Your task to perform on an android device: snooze an email in the gmail app Image 0: 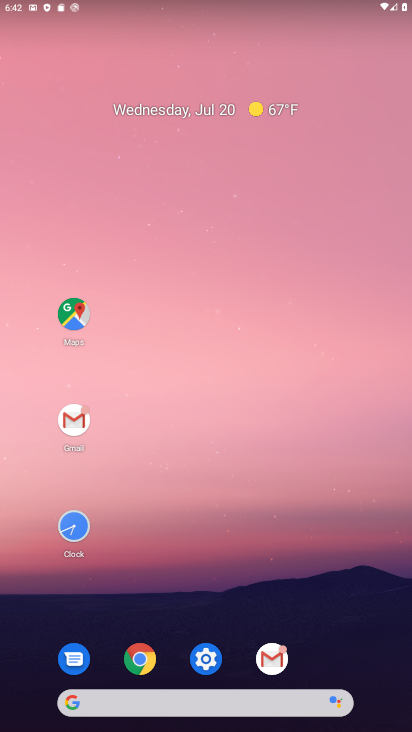
Step 0: click (282, 661)
Your task to perform on an android device: snooze an email in the gmail app Image 1: 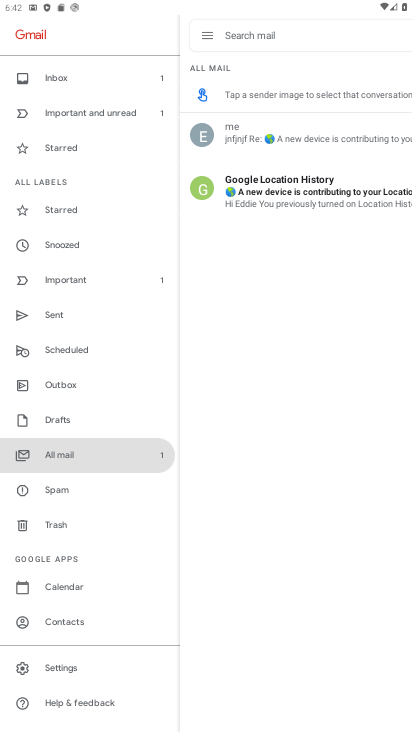
Step 1: click (278, 172)
Your task to perform on an android device: snooze an email in the gmail app Image 2: 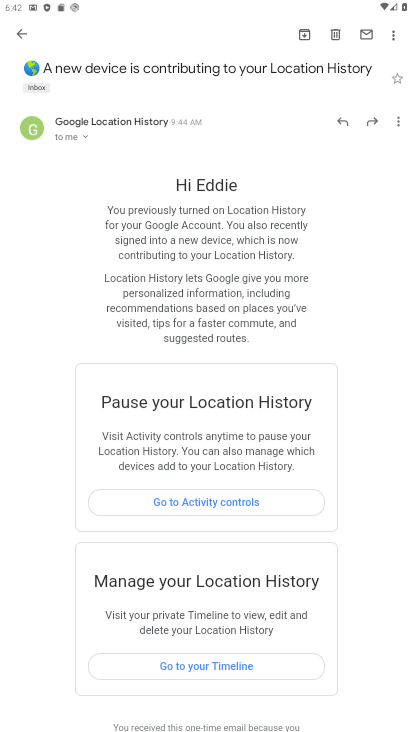
Step 2: click (393, 29)
Your task to perform on an android device: snooze an email in the gmail app Image 3: 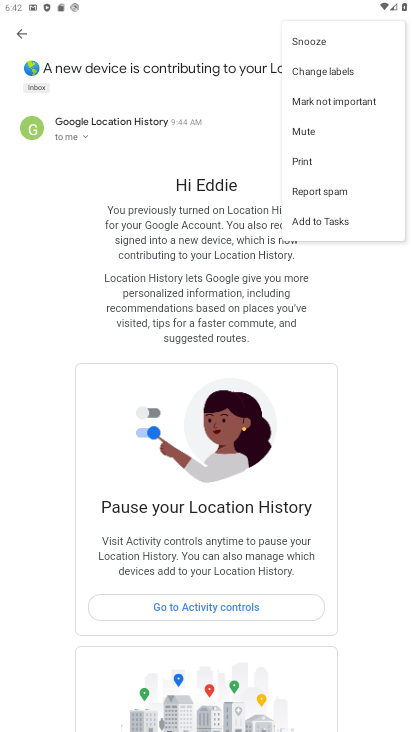
Step 3: click (320, 38)
Your task to perform on an android device: snooze an email in the gmail app Image 4: 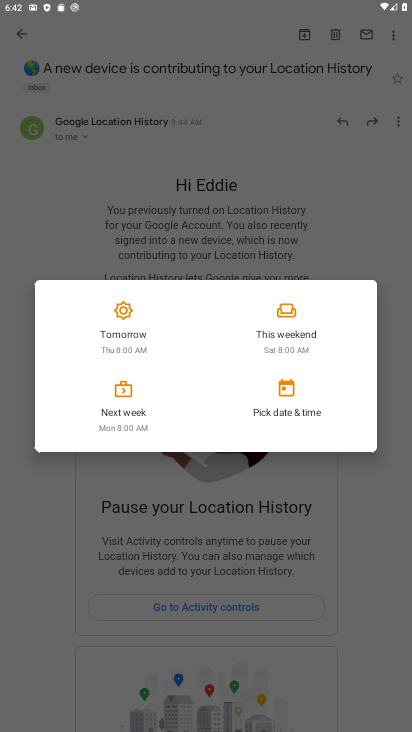
Step 4: click (123, 323)
Your task to perform on an android device: snooze an email in the gmail app Image 5: 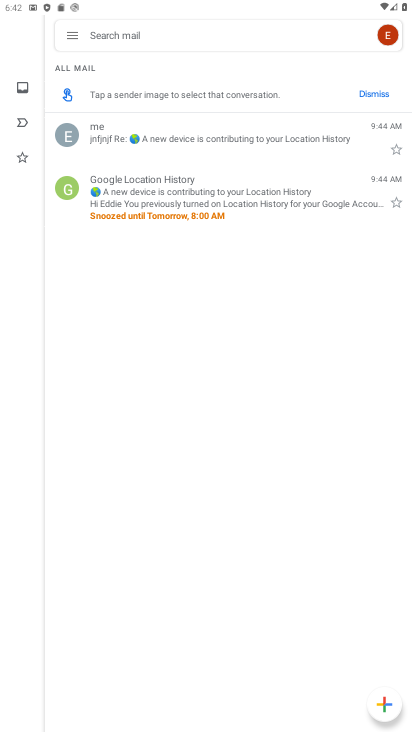
Step 5: task complete